Your task to perform on an android device: Show me popular games on the Play Store Image 0: 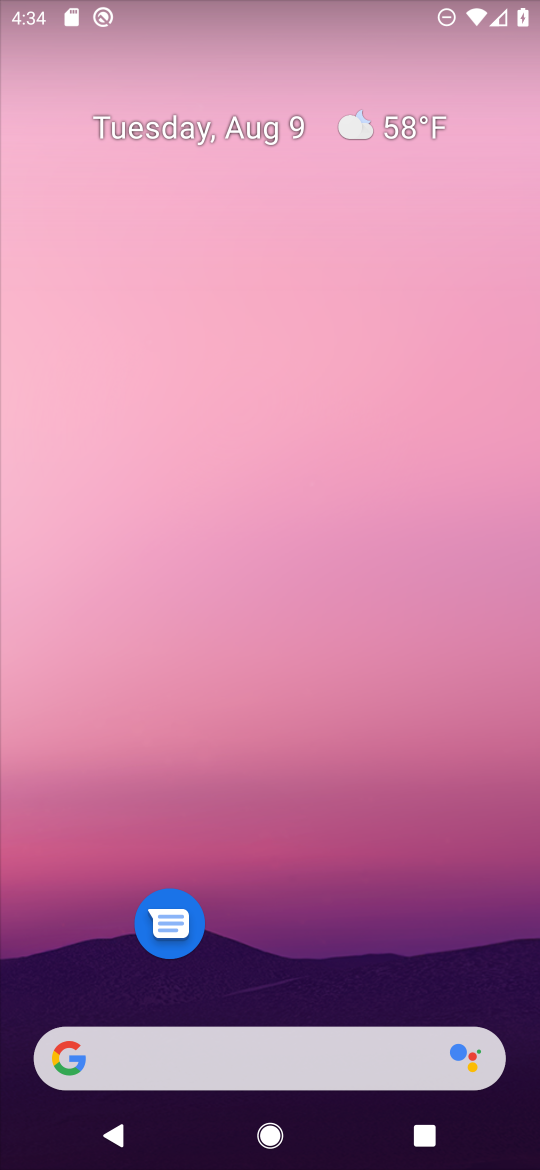
Step 0: drag from (322, 978) to (422, 25)
Your task to perform on an android device: Show me popular games on the Play Store Image 1: 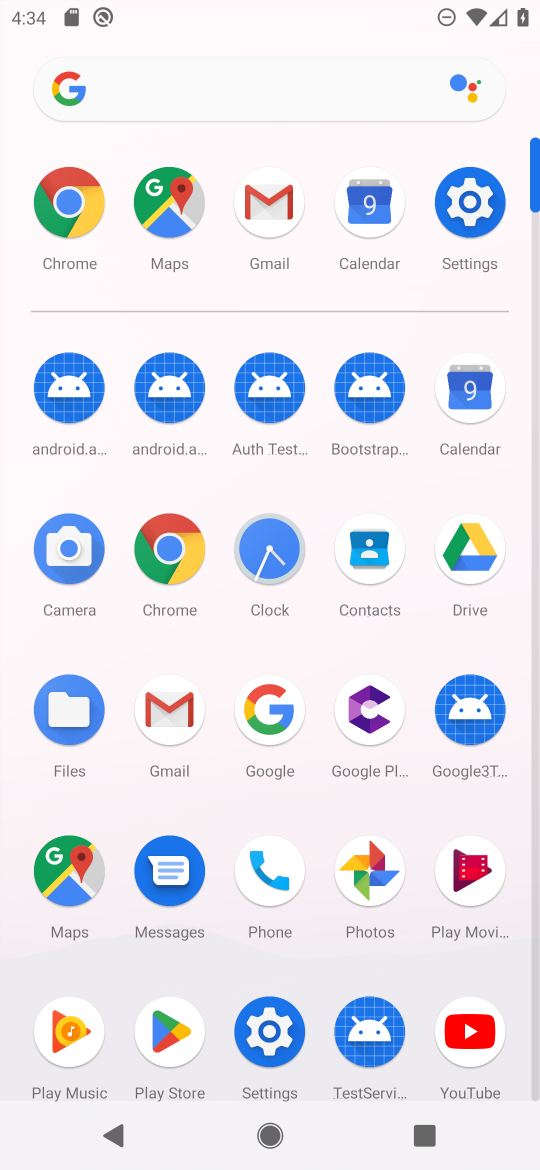
Step 1: click (156, 1036)
Your task to perform on an android device: Show me popular games on the Play Store Image 2: 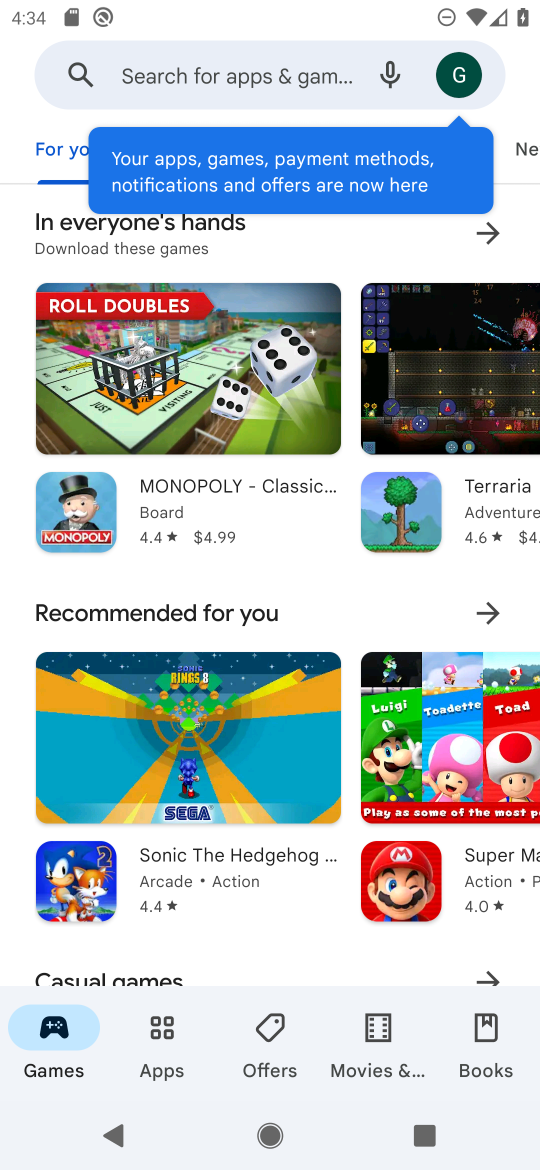
Step 2: drag from (178, 909) to (58, 333)
Your task to perform on an android device: Show me popular games on the Play Store Image 3: 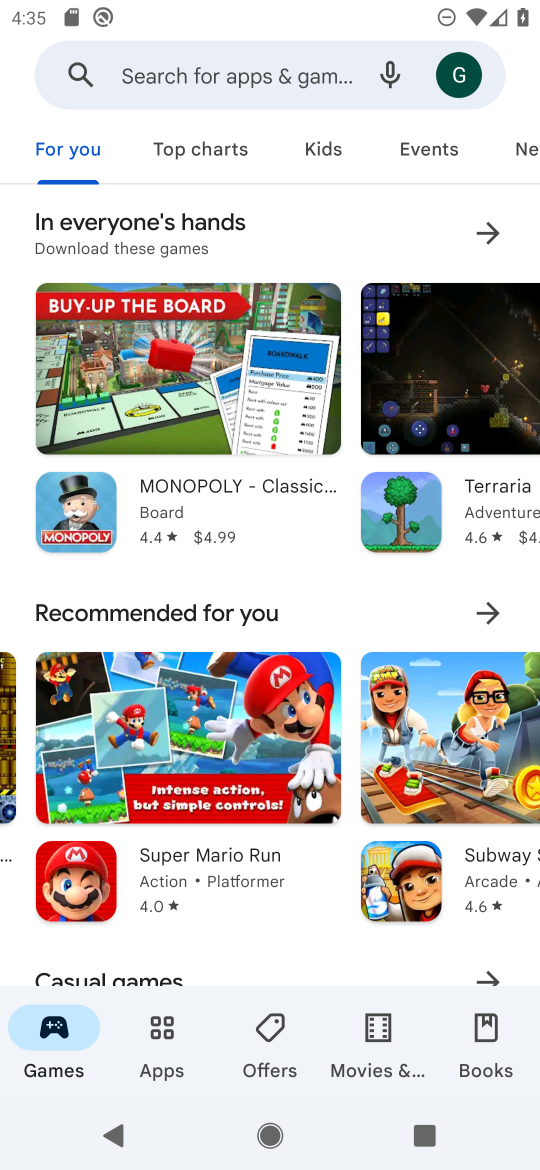
Step 3: drag from (19, 569) to (111, 141)
Your task to perform on an android device: Show me popular games on the Play Store Image 4: 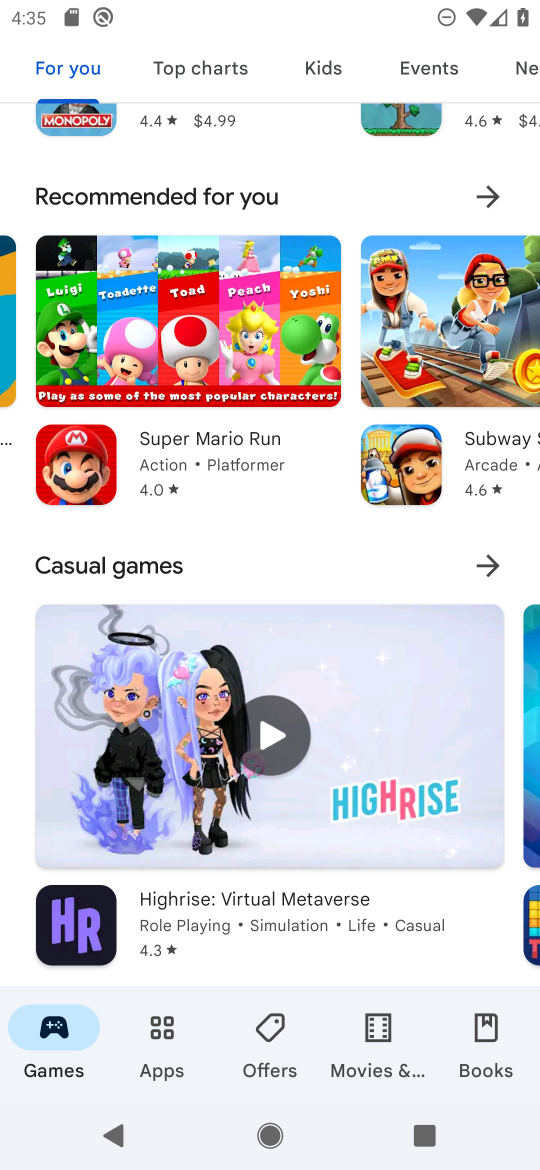
Step 4: drag from (7, 851) to (26, 218)
Your task to perform on an android device: Show me popular games on the Play Store Image 5: 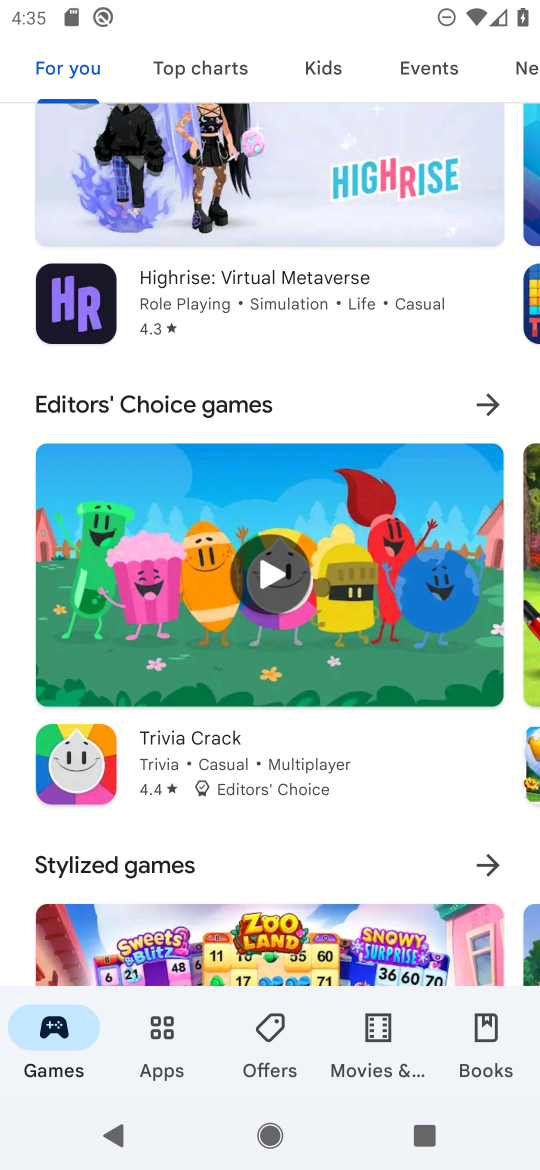
Step 5: drag from (12, 894) to (23, 224)
Your task to perform on an android device: Show me popular games on the Play Store Image 6: 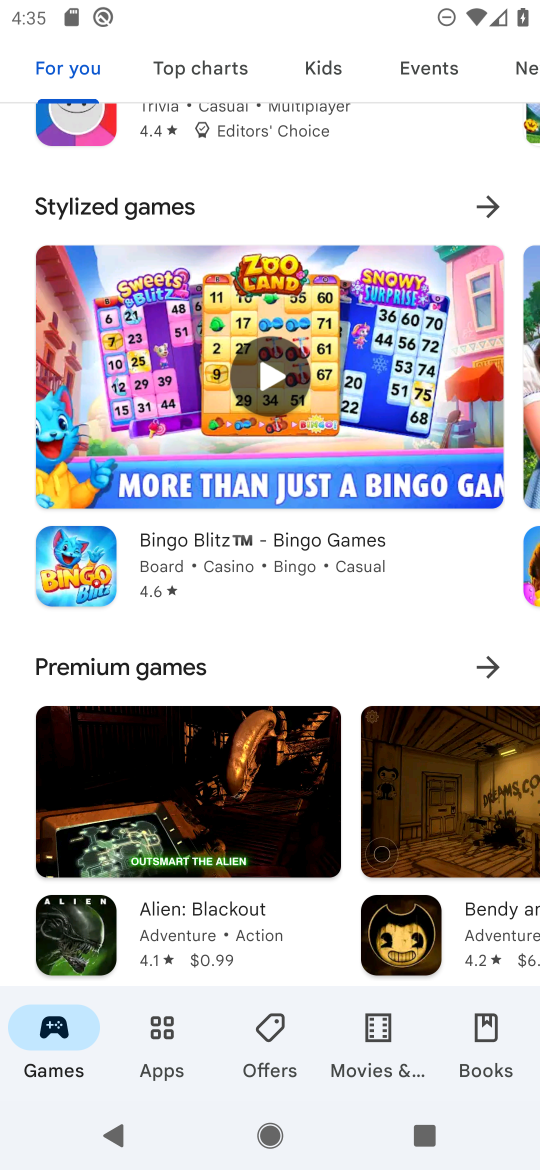
Step 6: drag from (15, 793) to (14, 198)
Your task to perform on an android device: Show me popular games on the Play Store Image 7: 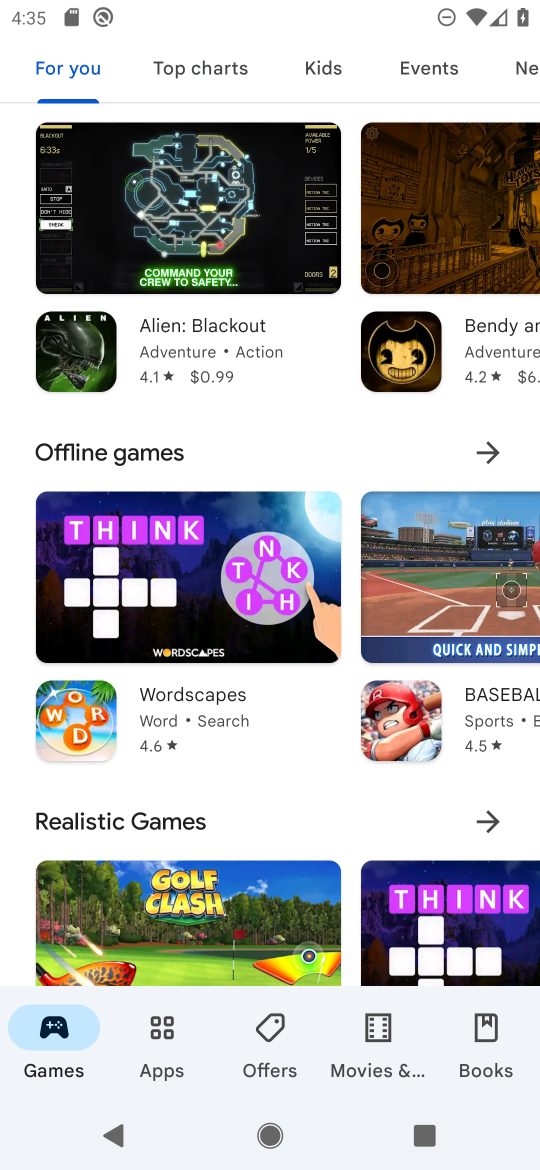
Step 7: drag from (4, 818) to (2, 225)
Your task to perform on an android device: Show me popular games on the Play Store Image 8: 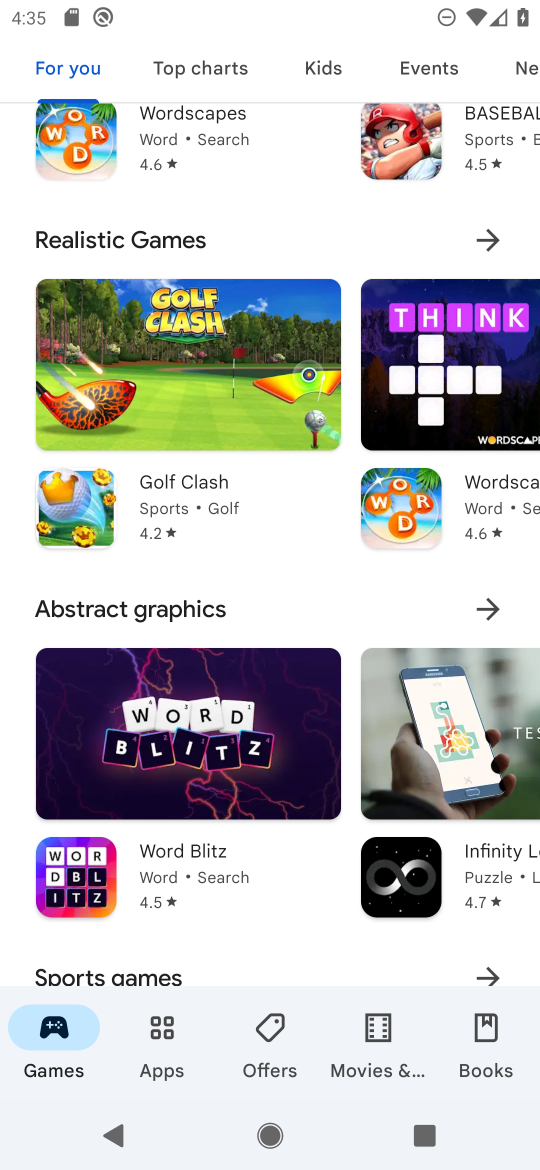
Step 8: drag from (15, 923) to (43, 337)
Your task to perform on an android device: Show me popular games on the Play Store Image 9: 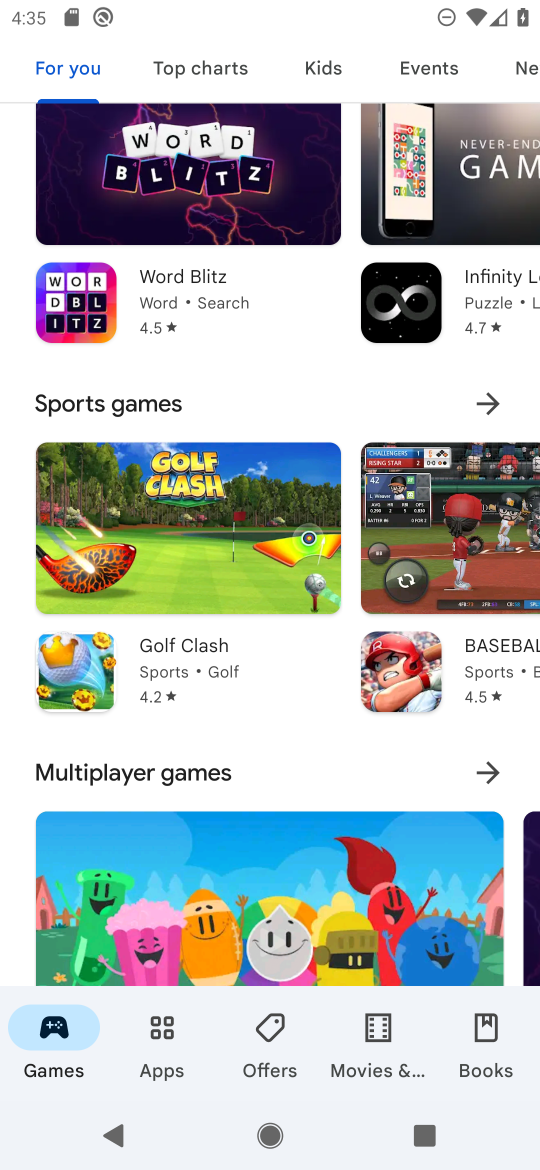
Step 9: drag from (27, 908) to (29, 285)
Your task to perform on an android device: Show me popular games on the Play Store Image 10: 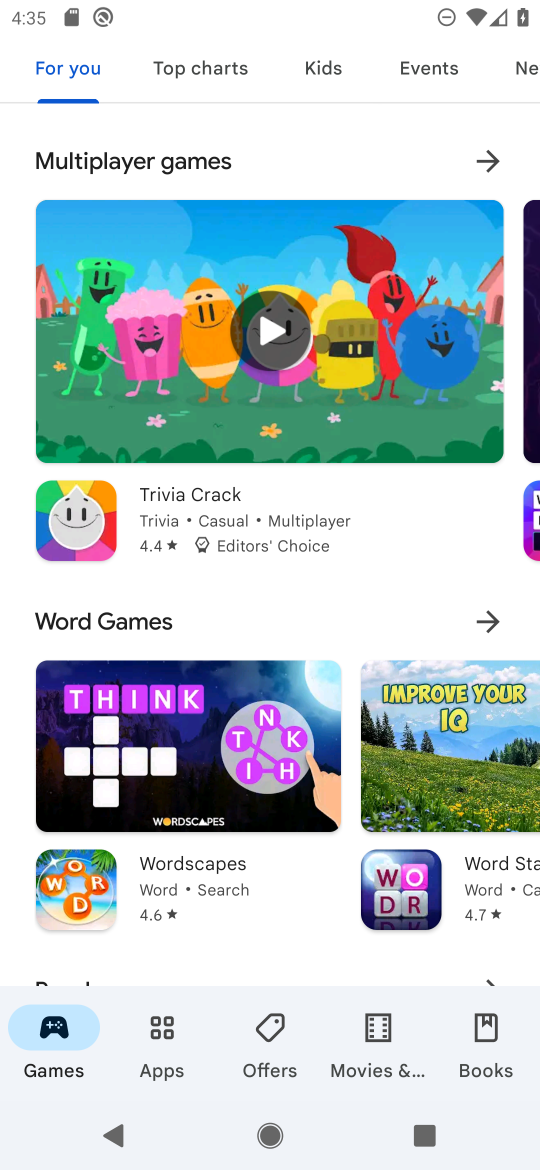
Step 10: drag from (20, 940) to (21, 333)
Your task to perform on an android device: Show me popular games on the Play Store Image 11: 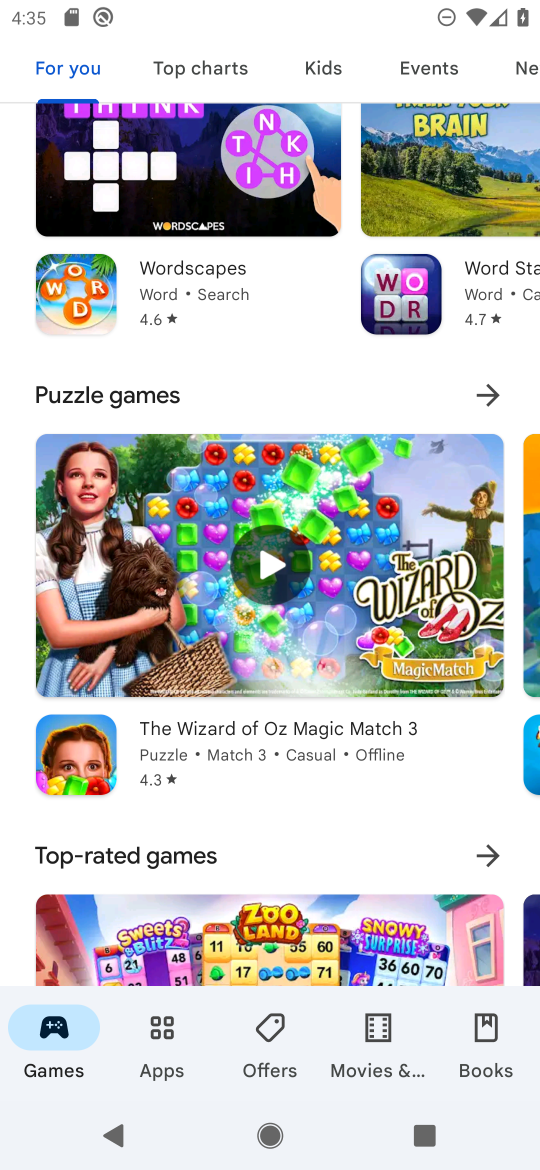
Step 11: drag from (14, 857) to (39, 195)
Your task to perform on an android device: Show me popular games on the Play Store Image 12: 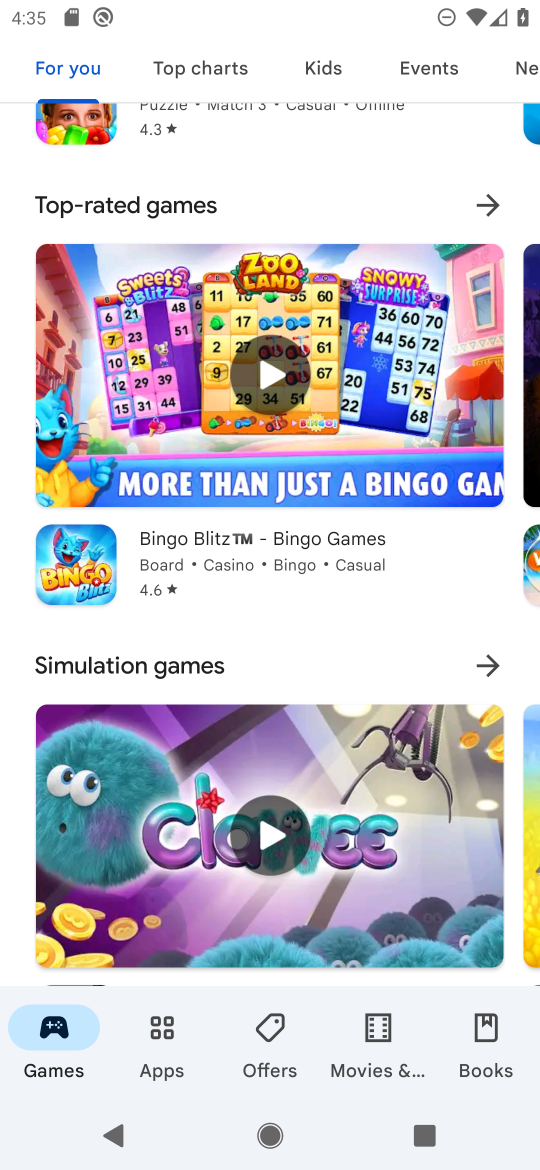
Step 12: drag from (18, 987) to (47, 366)
Your task to perform on an android device: Show me popular games on the Play Store Image 13: 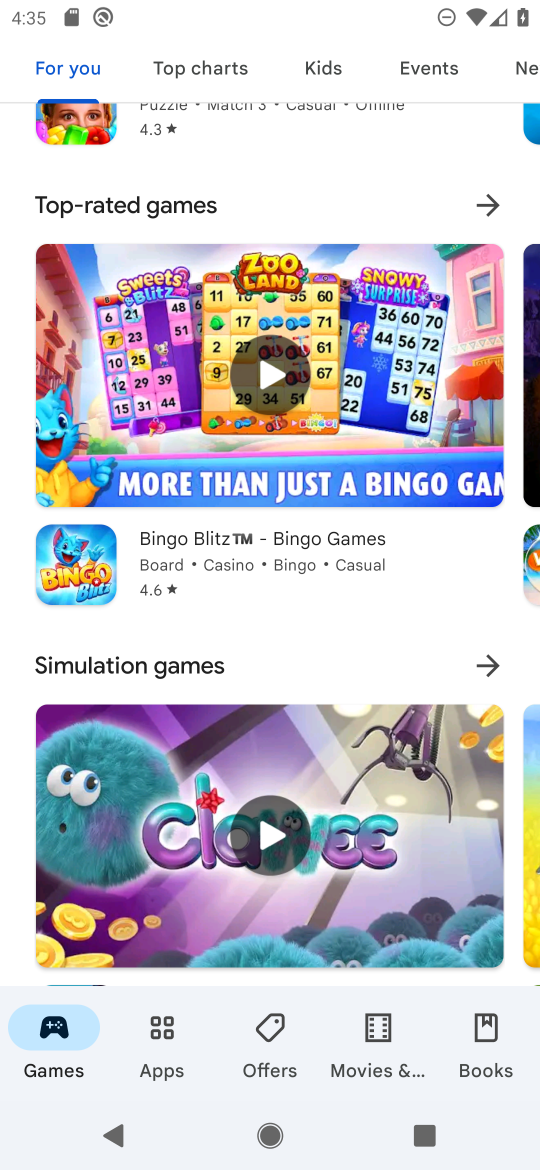
Step 13: drag from (19, 854) to (36, 197)
Your task to perform on an android device: Show me popular games on the Play Store Image 14: 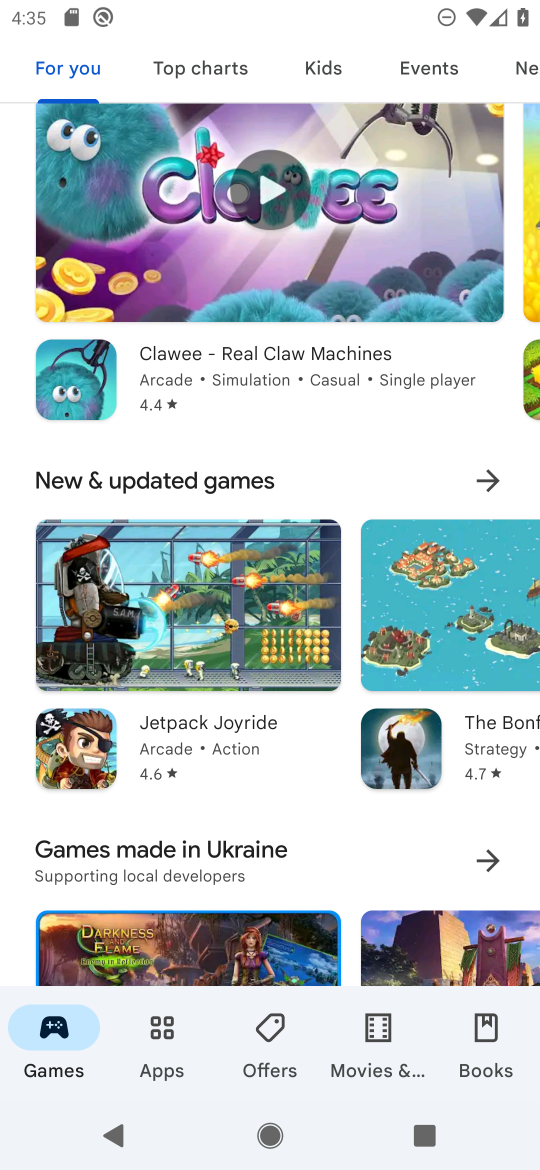
Step 14: drag from (13, 924) to (47, 180)
Your task to perform on an android device: Show me popular games on the Play Store Image 15: 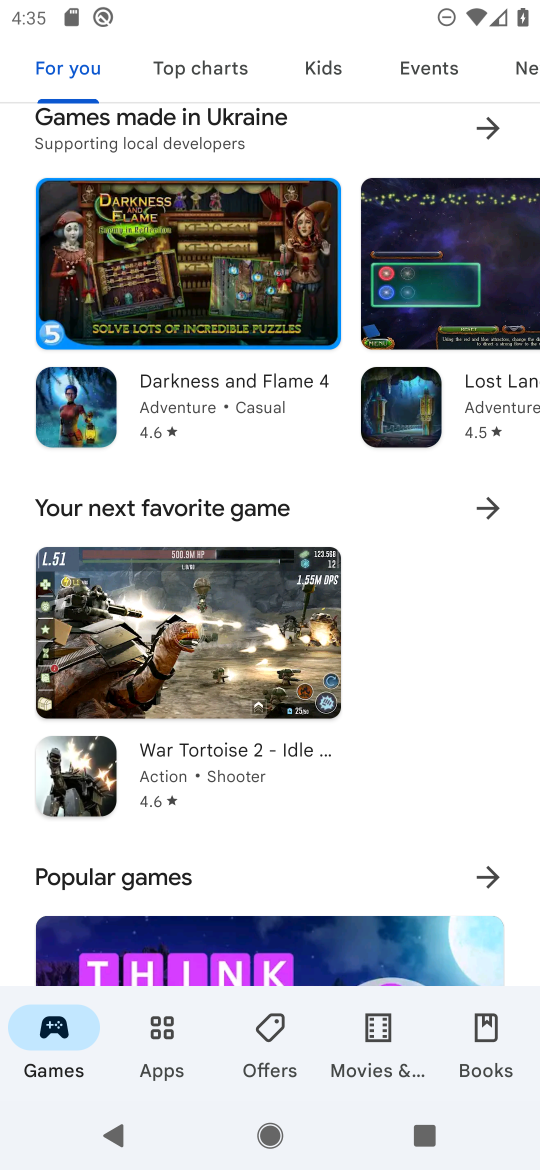
Step 15: click (489, 878)
Your task to perform on an android device: Show me popular games on the Play Store Image 16: 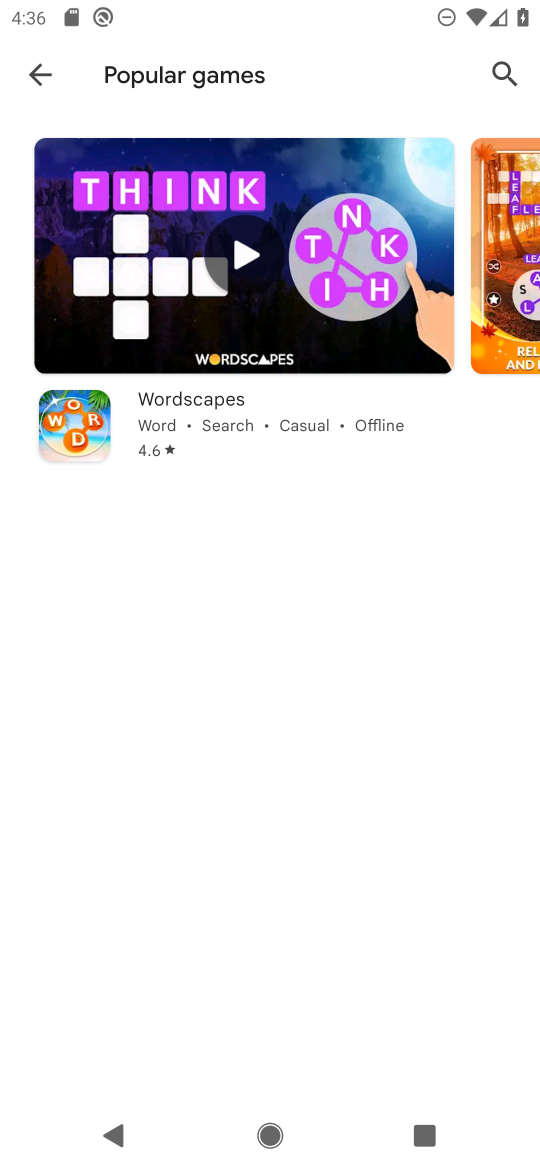
Step 16: task complete